Your task to perform on an android device: manage bookmarks in the chrome app Image 0: 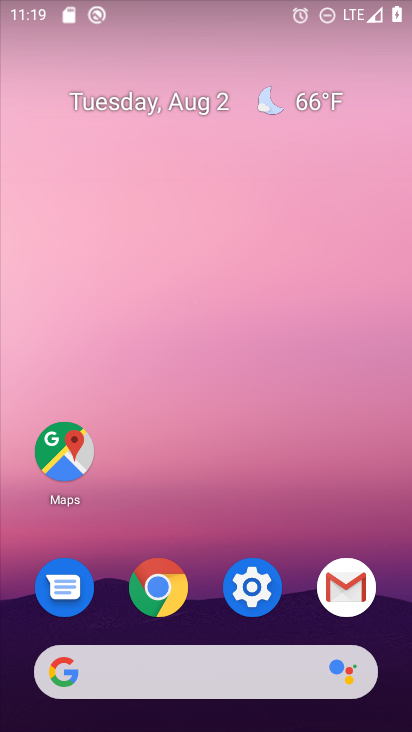
Step 0: click (173, 585)
Your task to perform on an android device: manage bookmarks in the chrome app Image 1: 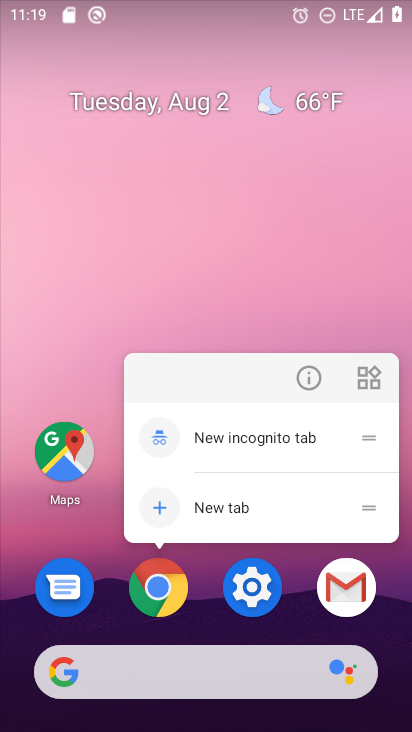
Step 1: click (165, 599)
Your task to perform on an android device: manage bookmarks in the chrome app Image 2: 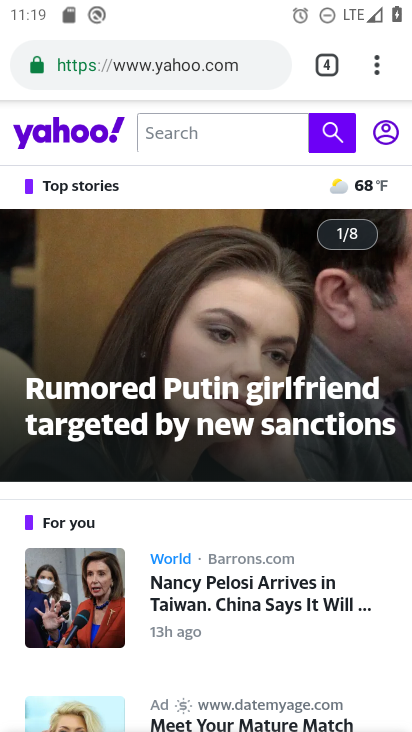
Step 2: click (374, 71)
Your task to perform on an android device: manage bookmarks in the chrome app Image 3: 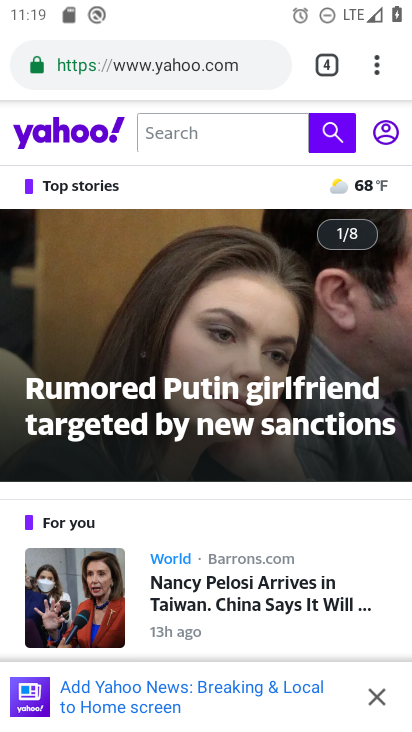
Step 3: click (368, 76)
Your task to perform on an android device: manage bookmarks in the chrome app Image 4: 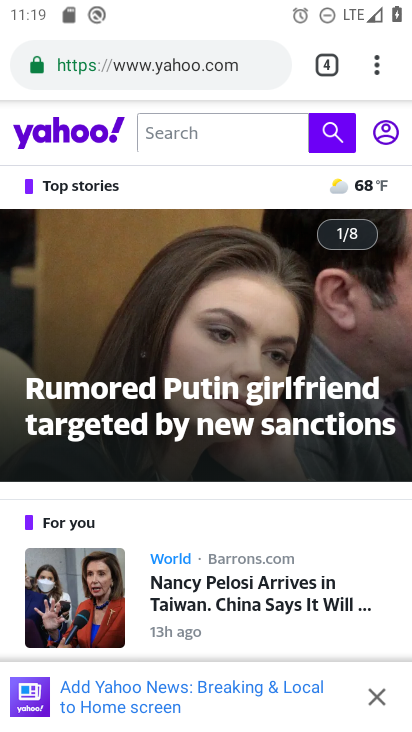
Step 4: click (368, 76)
Your task to perform on an android device: manage bookmarks in the chrome app Image 5: 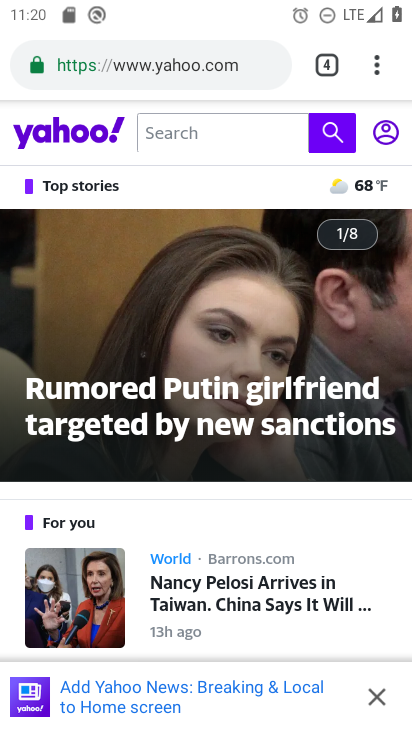
Step 5: click (382, 61)
Your task to perform on an android device: manage bookmarks in the chrome app Image 6: 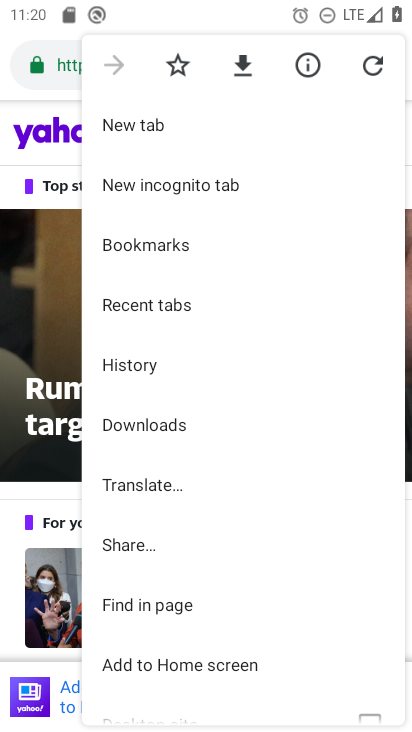
Step 6: drag from (176, 612) to (176, 323)
Your task to perform on an android device: manage bookmarks in the chrome app Image 7: 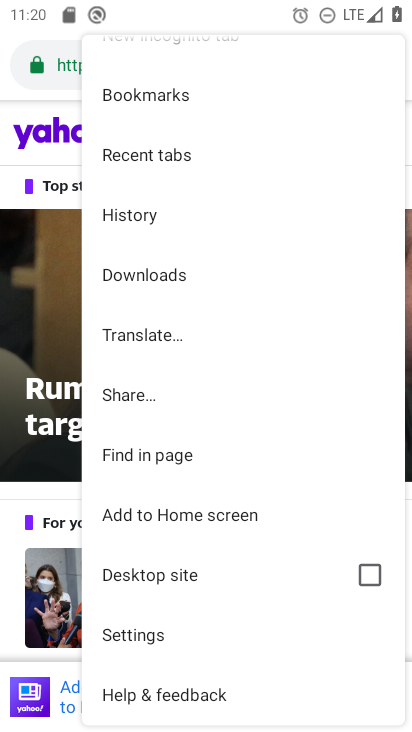
Step 7: click (163, 104)
Your task to perform on an android device: manage bookmarks in the chrome app Image 8: 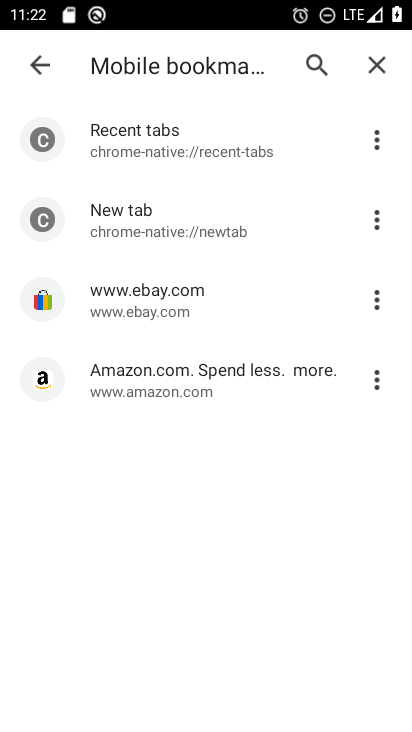
Step 8: task complete